Your task to perform on an android device: Open internet settings Image 0: 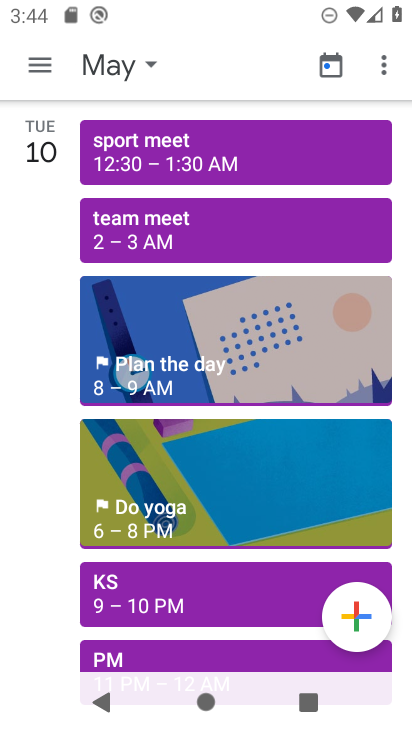
Step 0: press home button
Your task to perform on an android device: Open internet settings Image 1: 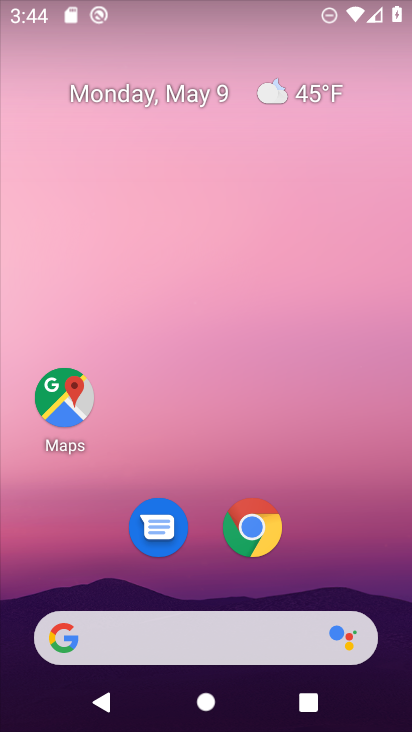
Step 1: drag from (338, 592) to (235, 319)
Your task to perform on an android device: Open internet settings Image 2: 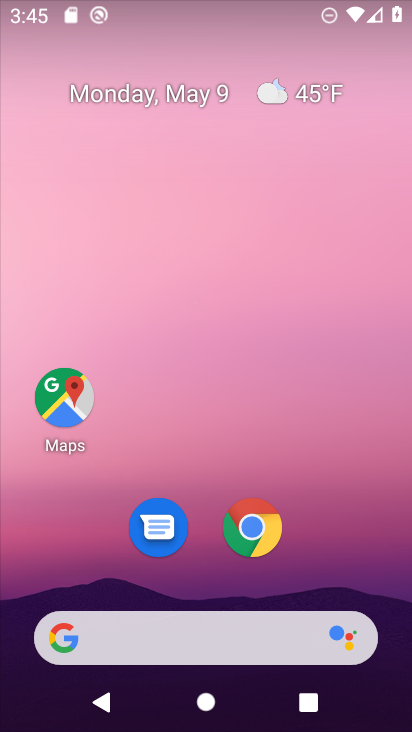
Step 2: drag from (357, 533) to (238, 187)
Your task to perform on an android device: Open internet settings Image 3: 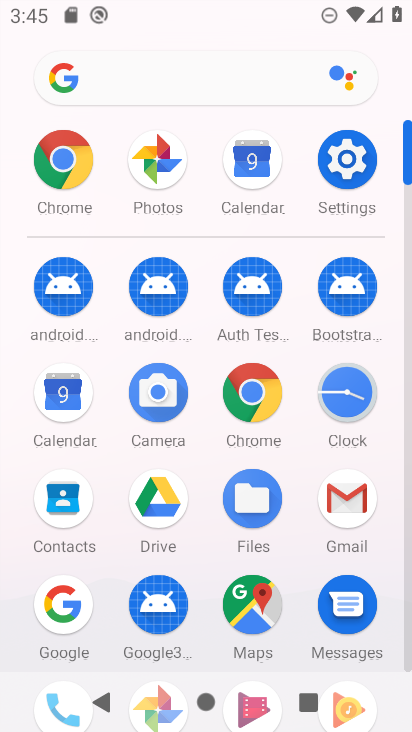
Step 3: click (340, 176)
Your task to perform on an android device: Open internet settings Image 4: 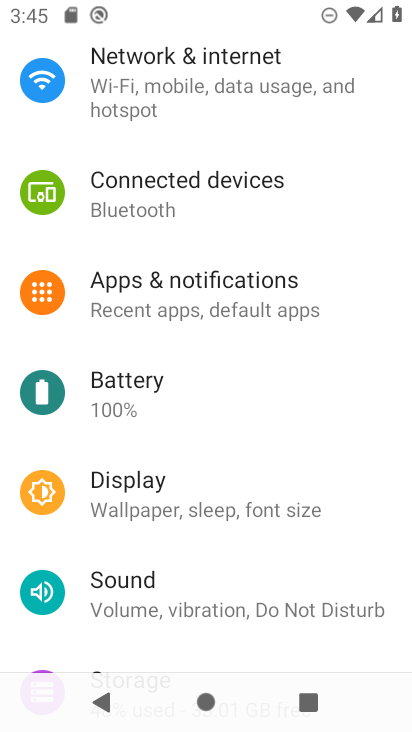
Step 4: click (279, 95)
Your task to perform on an android device: Open internet settings Image 5: 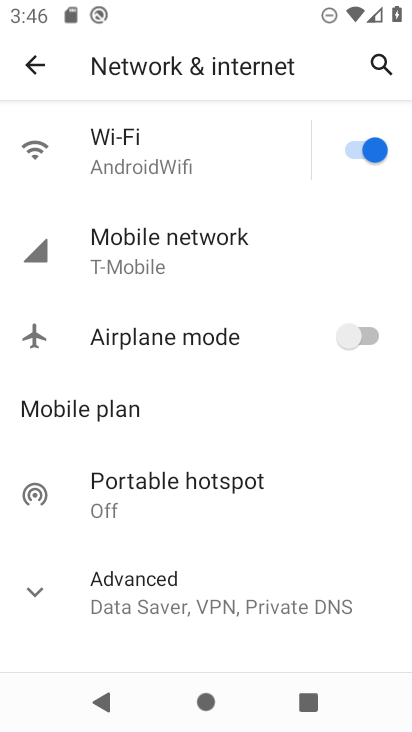
Step 5: task complete